Your task to perform on an android device: choose inbox layout in the gmail app Image 0: 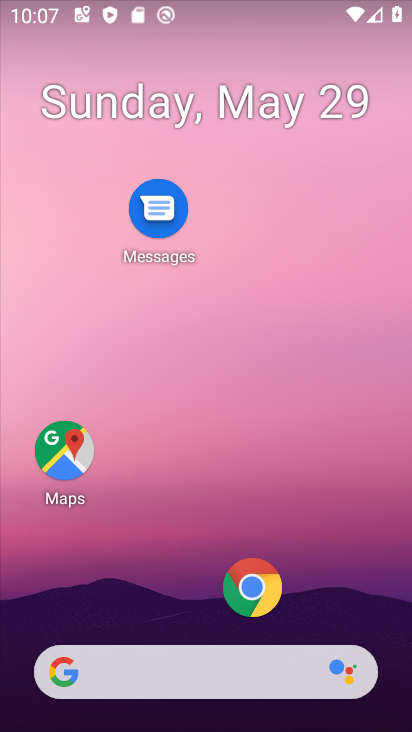
Step 0: drag from (171, 455) to (282, 67)
Your task to perform on an android device: choose inbox layout in the gmail app Image 1: 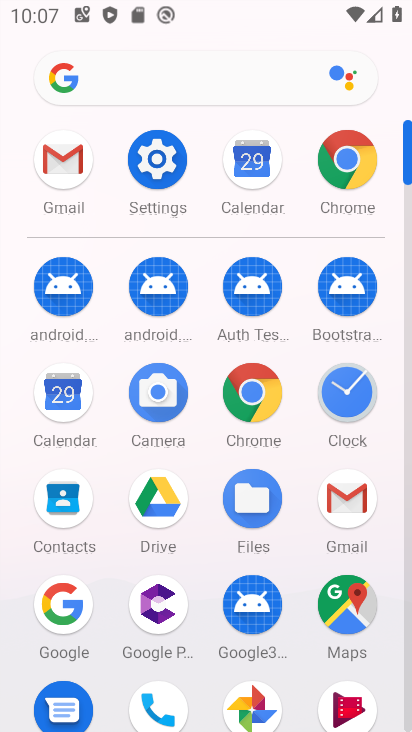
Step 1: click (48, 158)
Your task to perform on an android device: choose inbox layout in the gmail app Image 2: 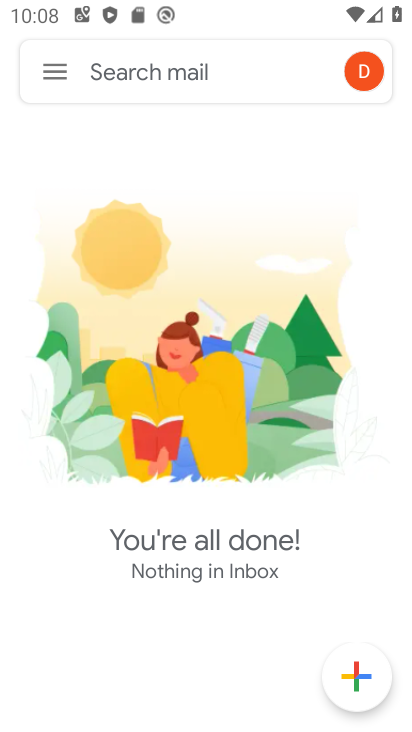
Step 2: click (57, 72)
Your task to perform on an android device: choose inbox layout in the gmail app Image 3: 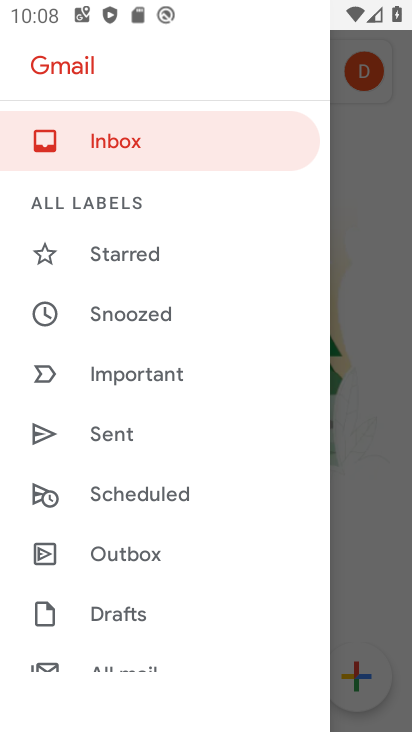
Step 3: drag from (130, 600) to (214, 143)
Your task to perform on an android device: choose inbox layout in the gmail app Image 4: 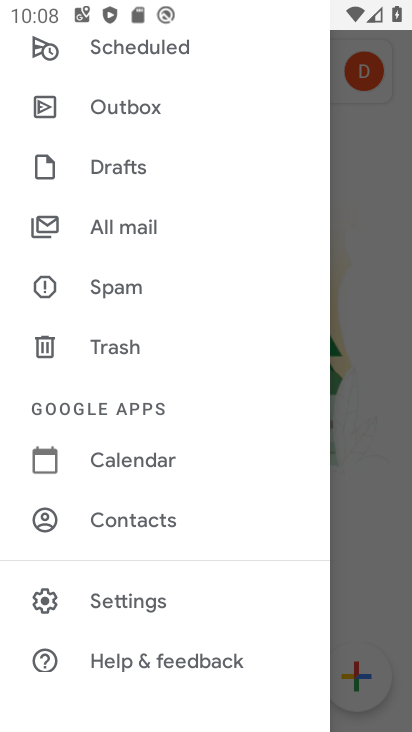
Step 4: click (122, 602)
Your task to perform on an android device: choose inbox layout in the gmail app Image 5: 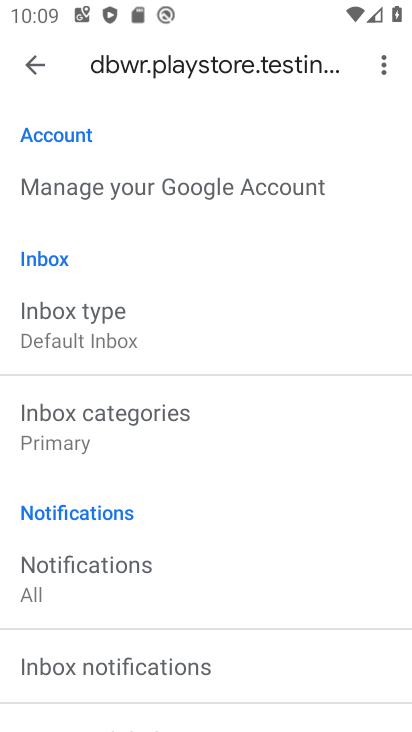
Step 5: click (134, 340)
Your task to perform on an android device: choose inbox layout in the gmail app Image 6: 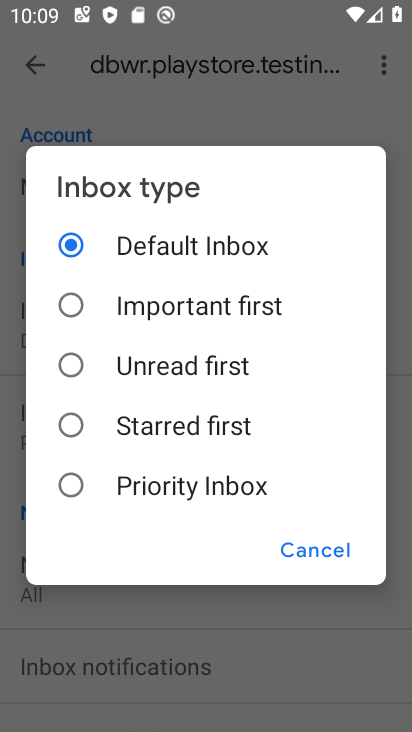
Step 6: click (67, 491)
Your task to perform on an android device: choose inbox layout in the gmail app Image 7: 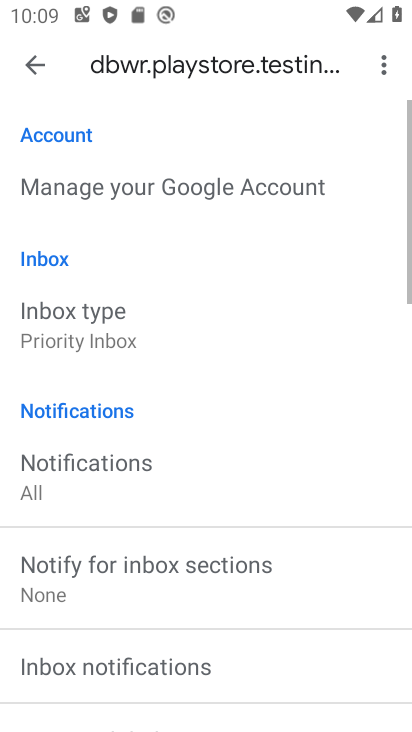
Step 7: task complete